Your task to perform on an android device: turn on translation in the chrome app Image 0: 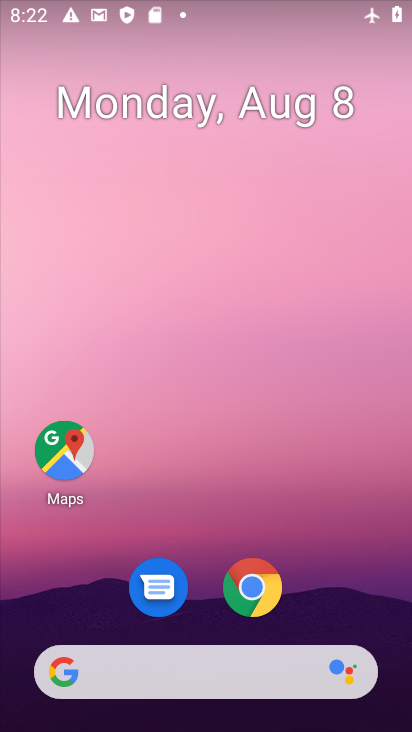
Step 0: drag from (264, 11) to (226, 444)
Your task to perform on an android device: turn on translation in the chrome app Image 1: 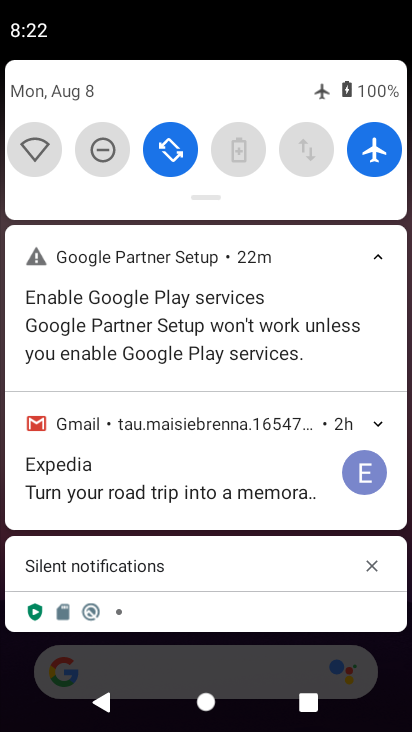
Step 1: click (386, 124)
Your task to perform on an android device: turn on translation in the chrome app Image 2: 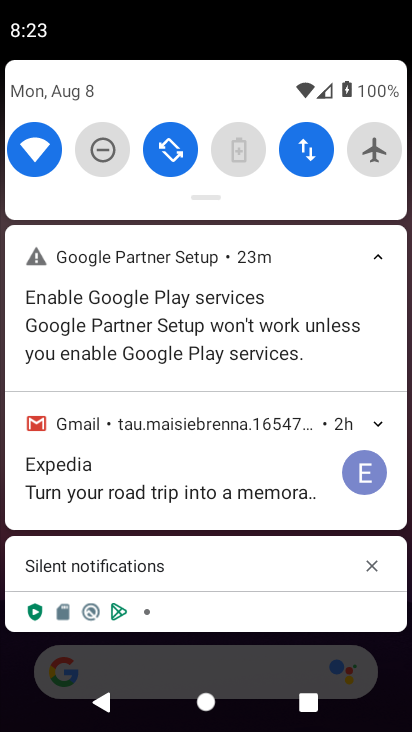
Step 2: press home button
Your task to perform on an android device: turn on translation in the chrome app Image 3: 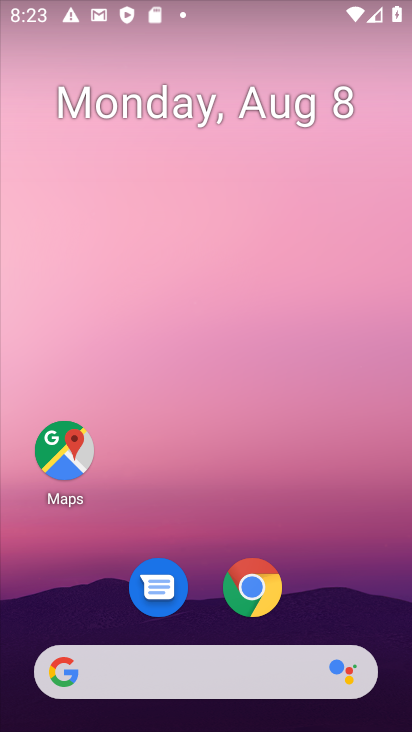
Step 3: click (255, 569)
Your task to perform on an android device: turn on translation in the chrome app Image 4: 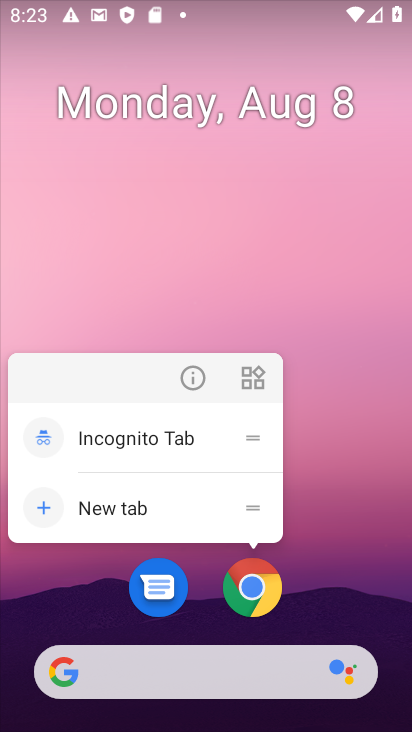
Step 4: click (256, 600)
Your task to perform on an android device: turn on translation in the chrome app Image 5: 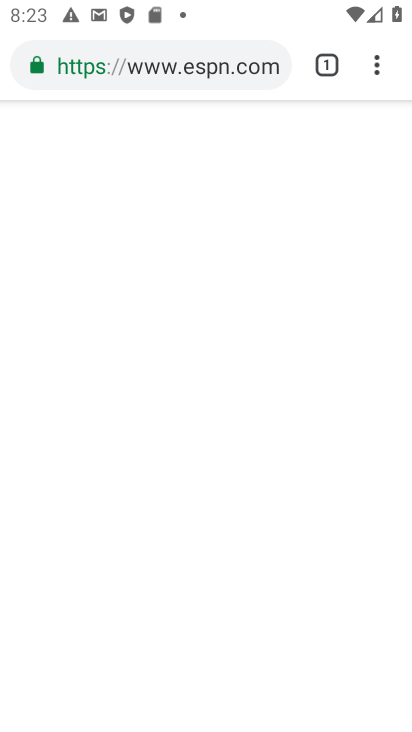
Step 5: click (384, 61)
Your task to perform on an android device: turn on translation in the chrome app Image 6: 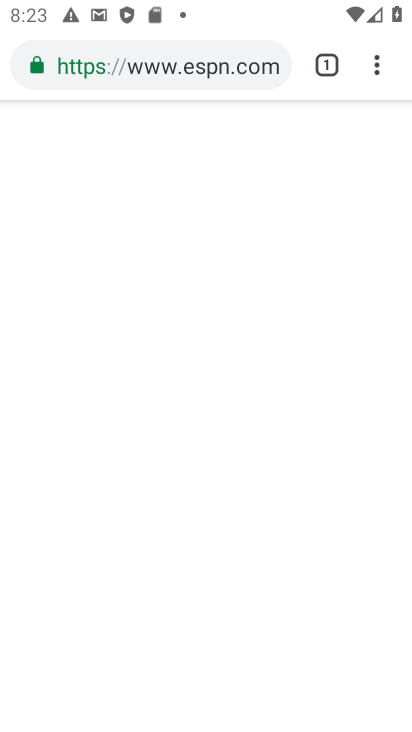
Step 6: click (372, 65)
Your task to perform on an android device: turn on translation in the chrome app Image 7: 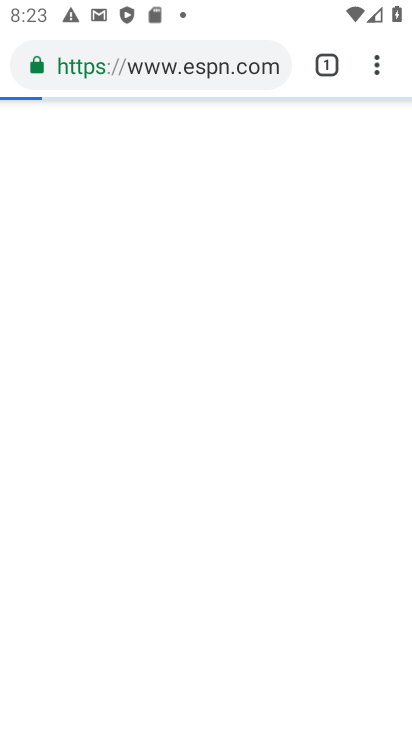
Step 7: click (370, 58)
Your task to perform on an android device: turn on translation in the chrome app Image 8: 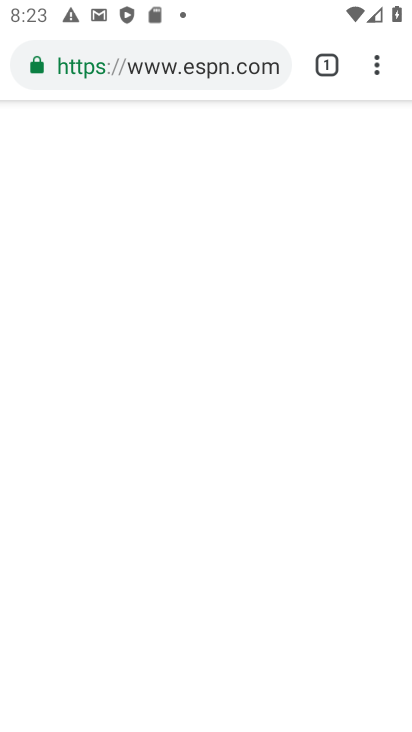
Step 8: click (377, 66)
Your task to perform on an android device: turn on translation in the chrome app Image 9: 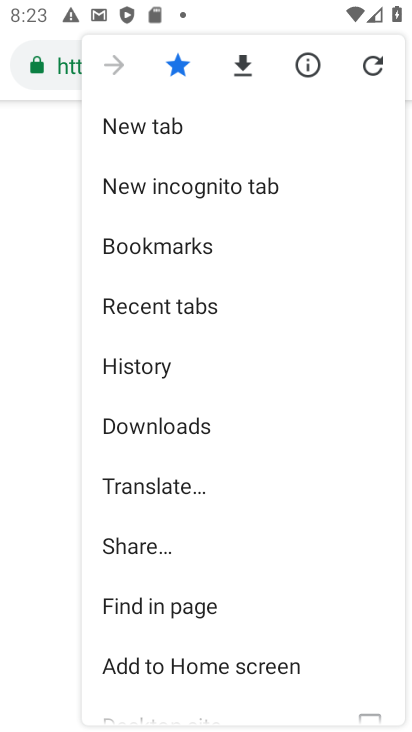
Step 9: drag from (143, 627) to (200, 196)
Your task to perform on an android device: turn on translation in the chrome app Image 10: 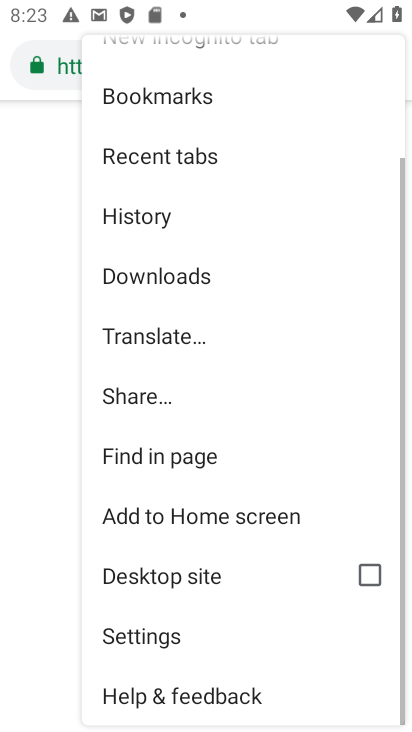
Step 10: click (163, 642)
Your task to perform on an android device: turn on translation in the chrome app Image 11: 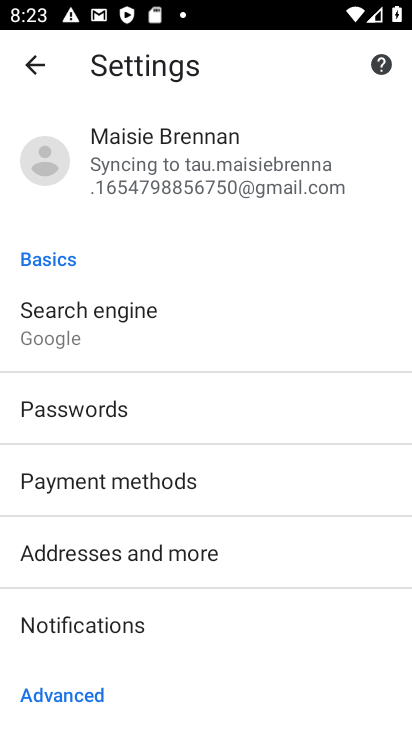
Step 11: drag from (84, 655) to (85, 322)
Your task to perform on an android device: turn on translation in the chrome app Image 12: 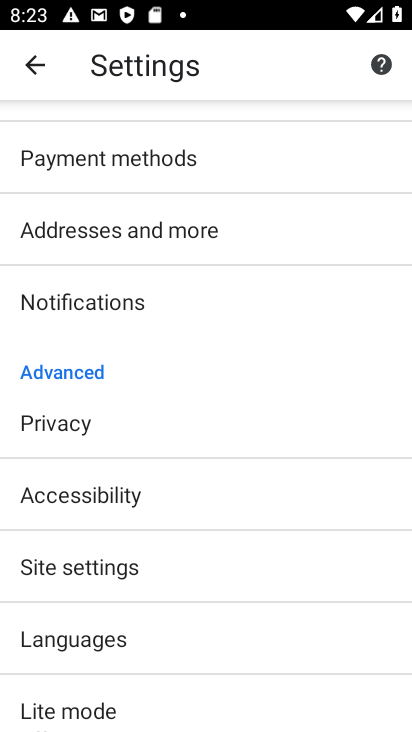
Step 12: click (111, 646)
Your task to perform on an android device: turn on translation in the chrome app Image 13: 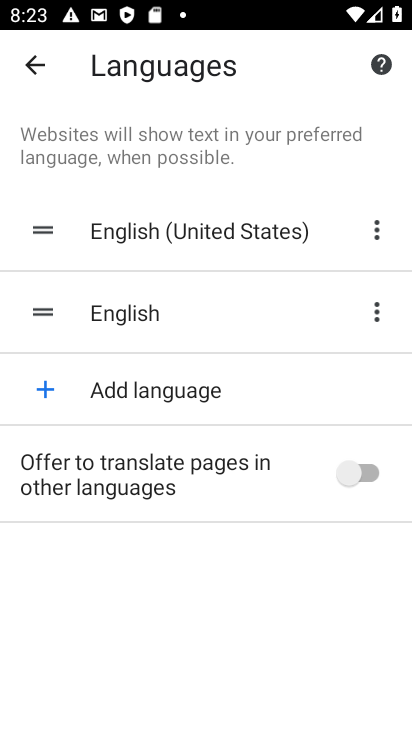
Step 13: click (367, 471)
Your task to perform on an android device: turn on translation in the chrome app Image 14: 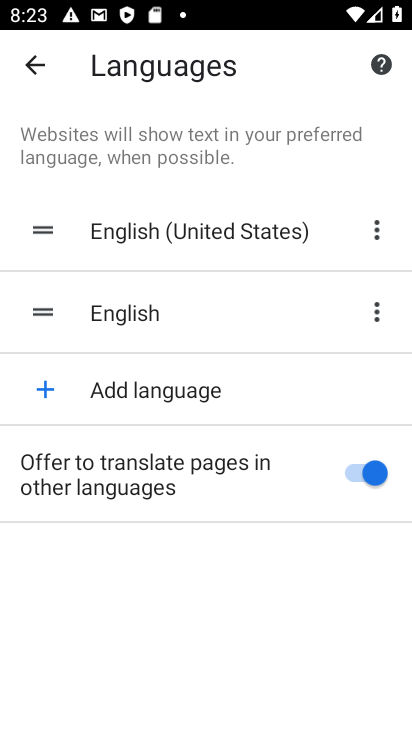
Step 14: task complete